Your task to perform on an android device: Open ESPN.com Image 0: 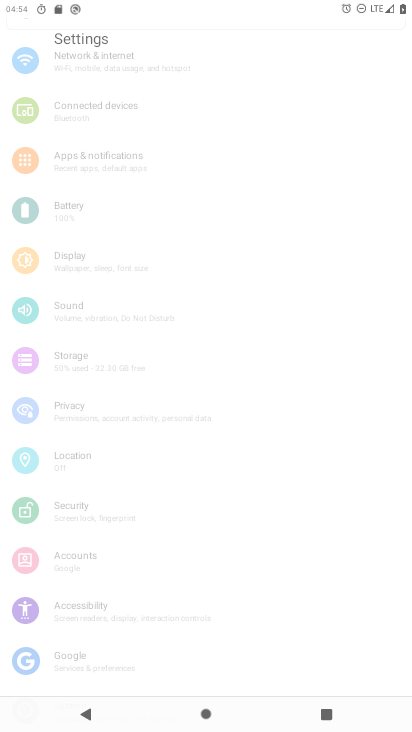
Step 0: drag from (280, 564) to (256, 140)
Your task to perform on an android device: Open ESPN.com Image 1: 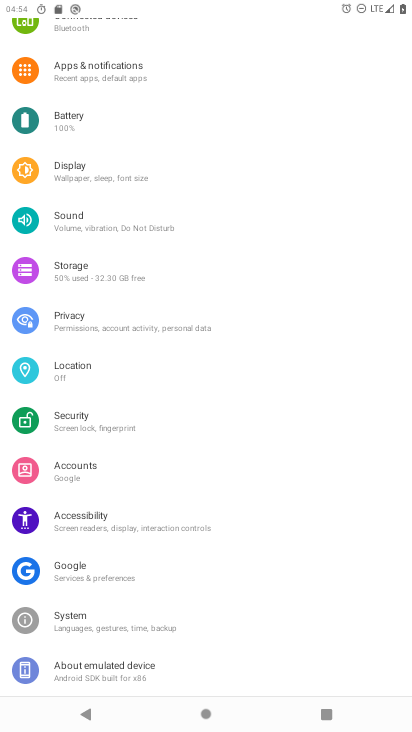
Step 1: press home button
Your task to perform on an android device: Open ESPN.com Image 2: 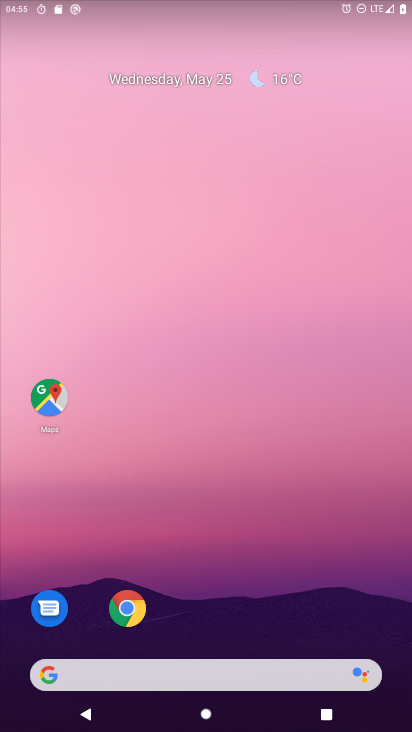
Step 2: click (130, 608)
Your task to perform on an android device: Open ESPN.com Image 3: 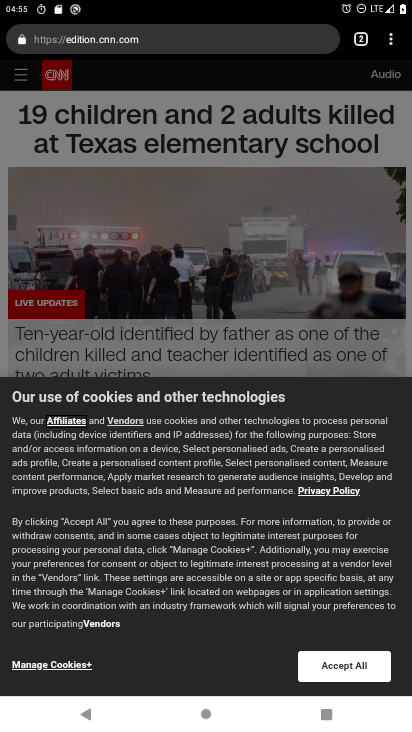
Step 3: click (197, 56)
Your task to perform on an android device: Open ESPN.com Image 4: 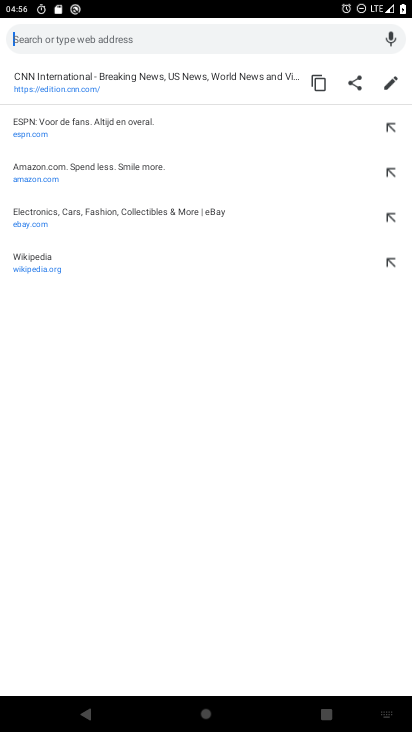
Step 4: click (35, 134)
Your task to perform on an android device: Open ESPN.com Image 5: 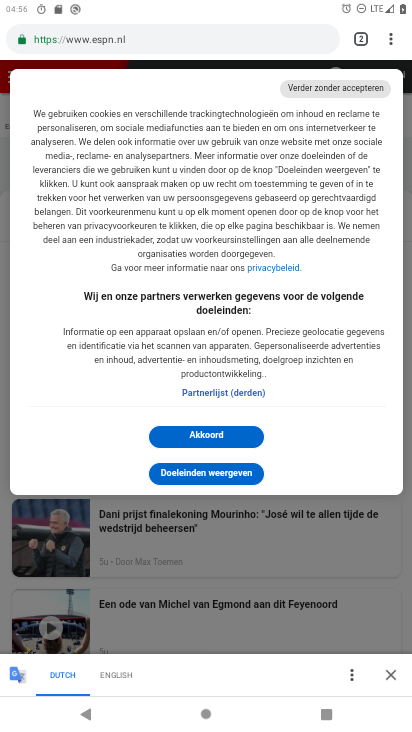
Step 5: task complete